Your task to perform on an android device: What's the weather going to be this weekend? Image 0: 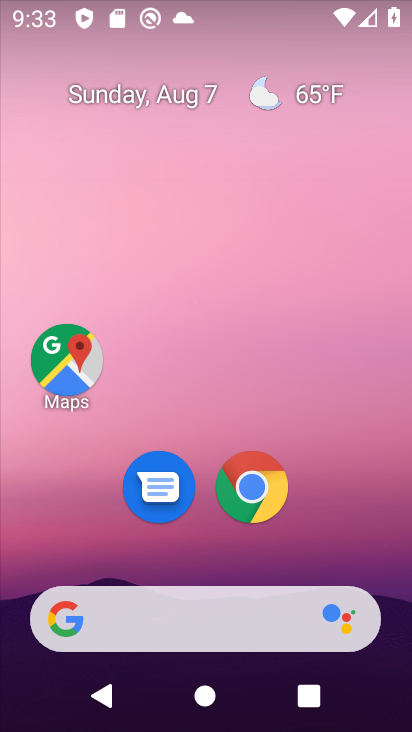
Step 0: drag from (365, 554) to (267, 145)
Your task to perform on an android device: What's the weather going to be this weekend? Image 1: 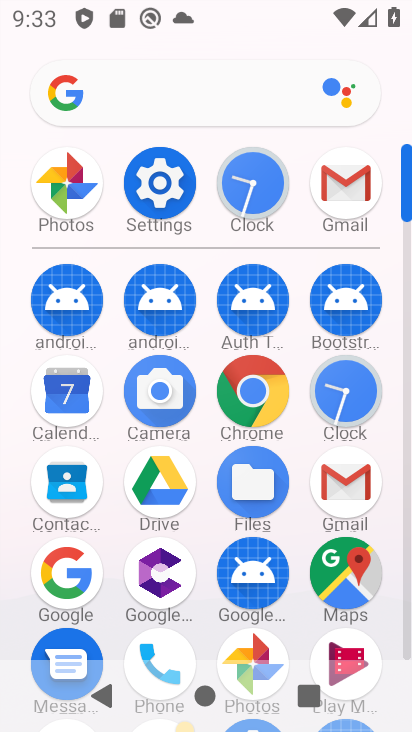
Step 1: click (51, 564)
Your task to perform on an android device: What's the weather going to be this weekend? Image 2: 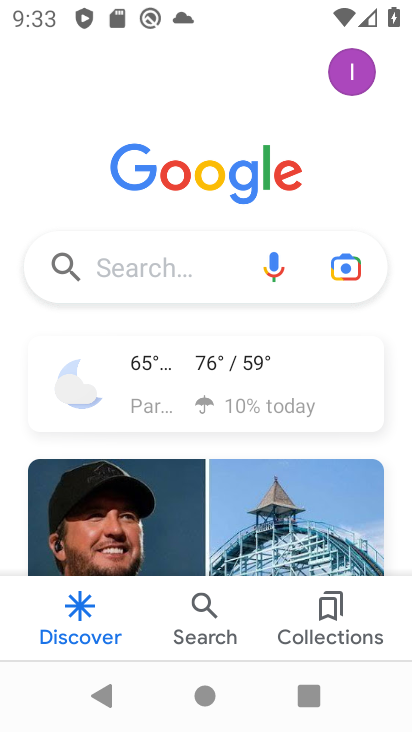
Step 2: click (185, 372)
Your task to perform on an android device: What's the weather going to be this weekend? Image 3: 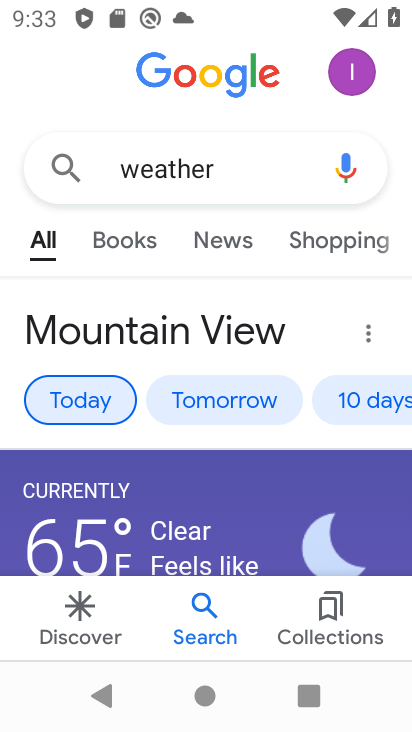
Step 3: click (332, 401)
Your task to perform on an android device: What's the weather going to be this weekend? Image 4: 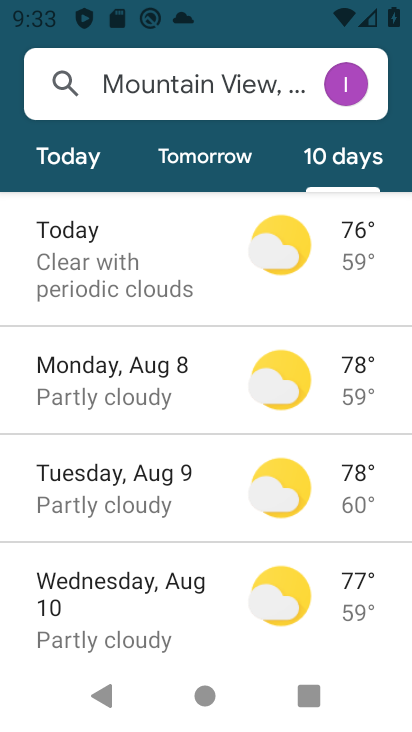
Step 4: task complete